Your task to perform on an android device: open the mobile data screen to see how much data has been used Image 0: 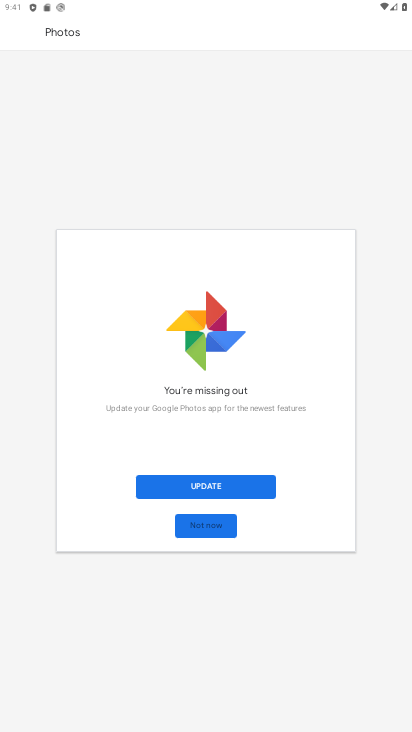
Step 0: press home button
Your task to perform on an android device: open the mobile data screen to see how much data has been used Image 1: 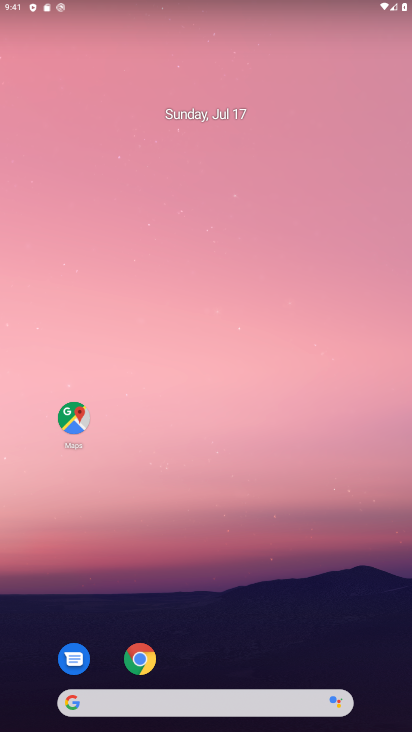
Step 1: drag from (257, 634) to (237, 224)
Your task to perform on an android device: open the mobile data screen to see how much data has been used Image 2: 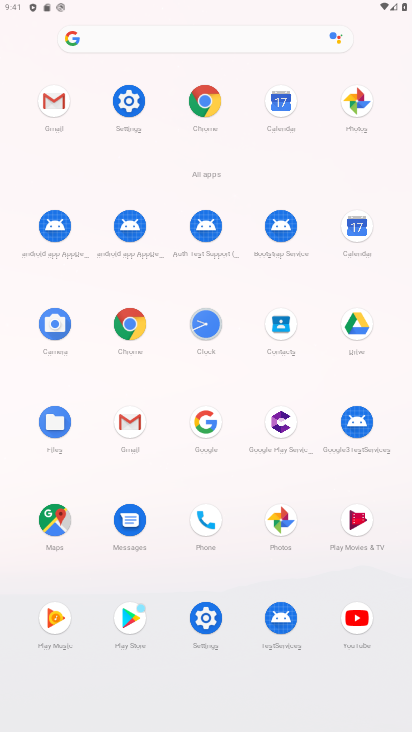
Step 2: click (118, 96)
Your task to perform on an android device: open the mobile data screen to see how much data has been used Image 3: 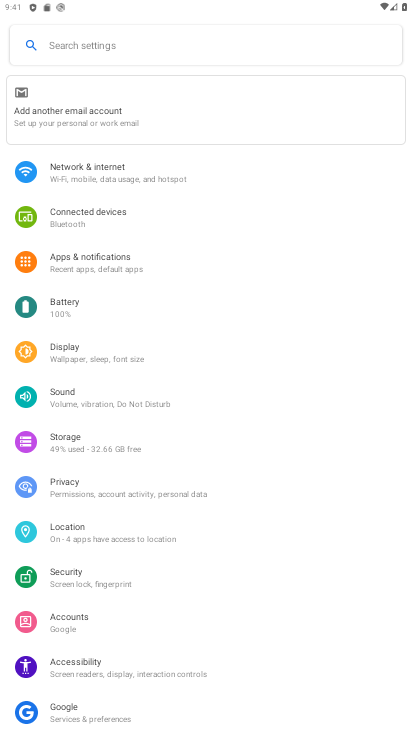
Step 3: click (96, 179)
Your task to perform on an android device: open the mobile data screen to see how much data has been used Image 4: 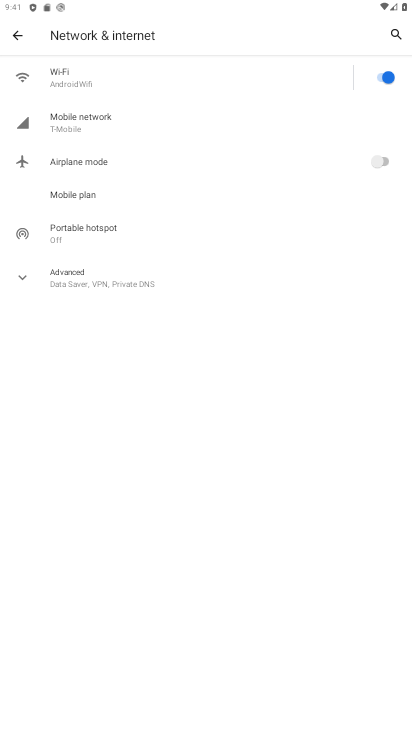
Step 4: click (109, 128)
Your task to perform on an android device: open the mobile data screen to see how much data has been used Image 5: 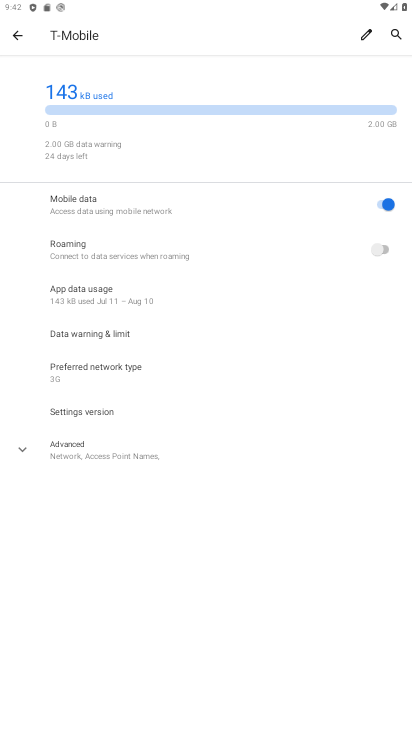
Step 5: click (114, 293)
Your task to perform on an android device: open the mobile data screen to see how much data has been used Image 6: 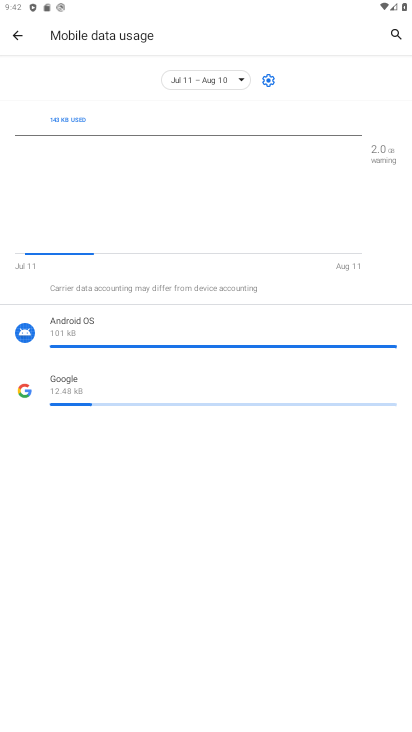
Step 6: task complete